Your task to perform on an android device: Go to internet settings Image 0: 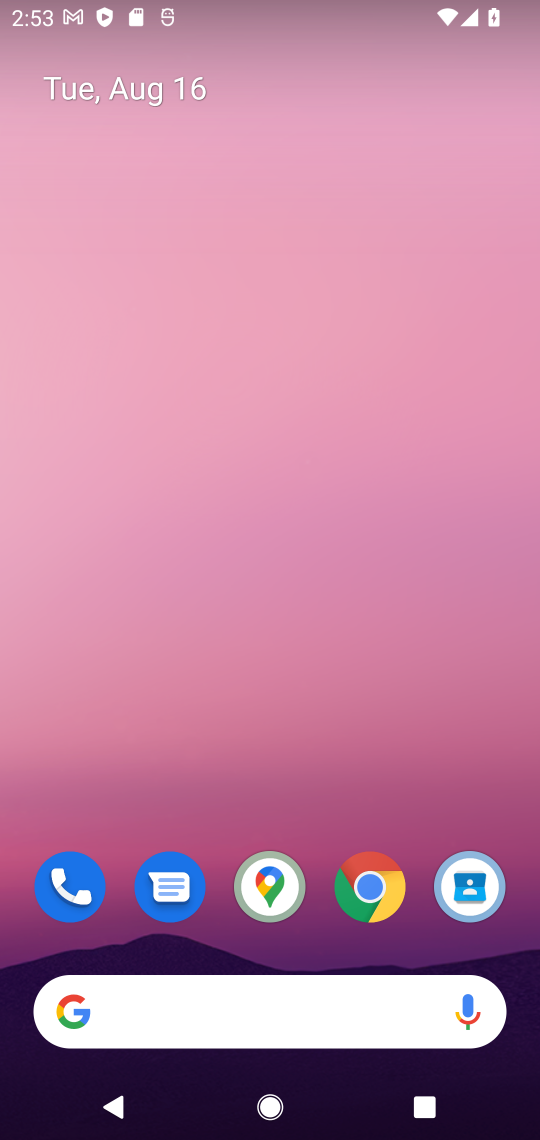
Step 0: drag from (315, 777) to (306, 124)
Your task to perform on an android device: Go to internet settings Image 1: 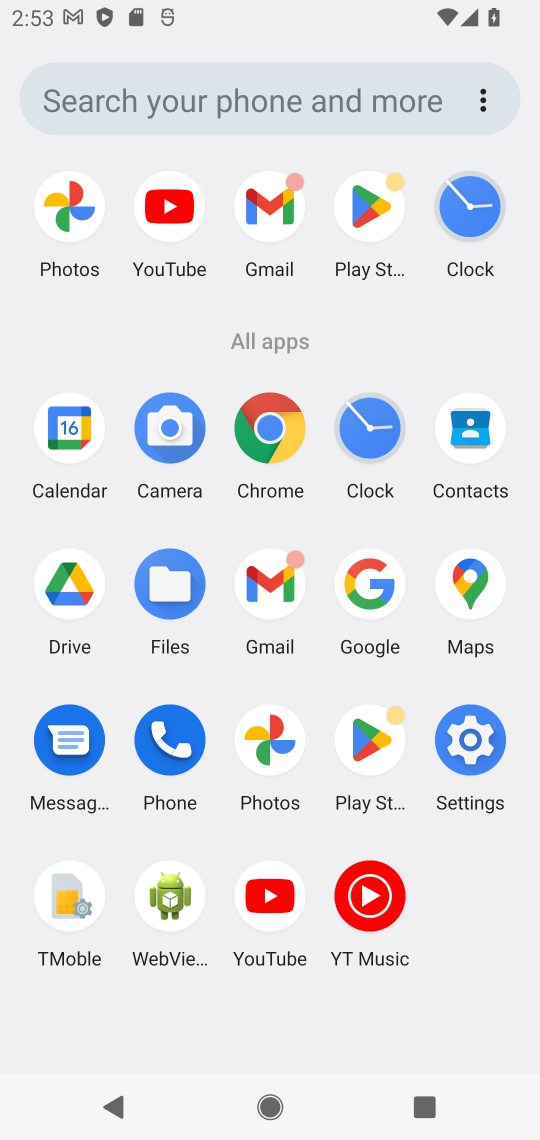
Step 1: click (476, 752)
Your task to perform on an android device: Go to internet settings Image 2: 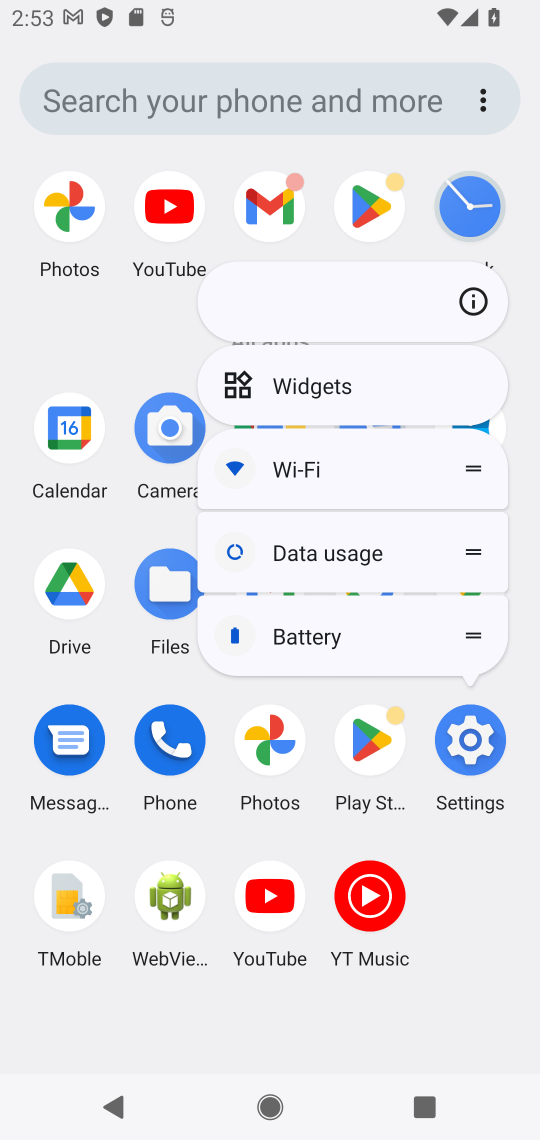
Step 2: click (473, 750)
Your task to perform on an android device: Go to internet settings Image 3: 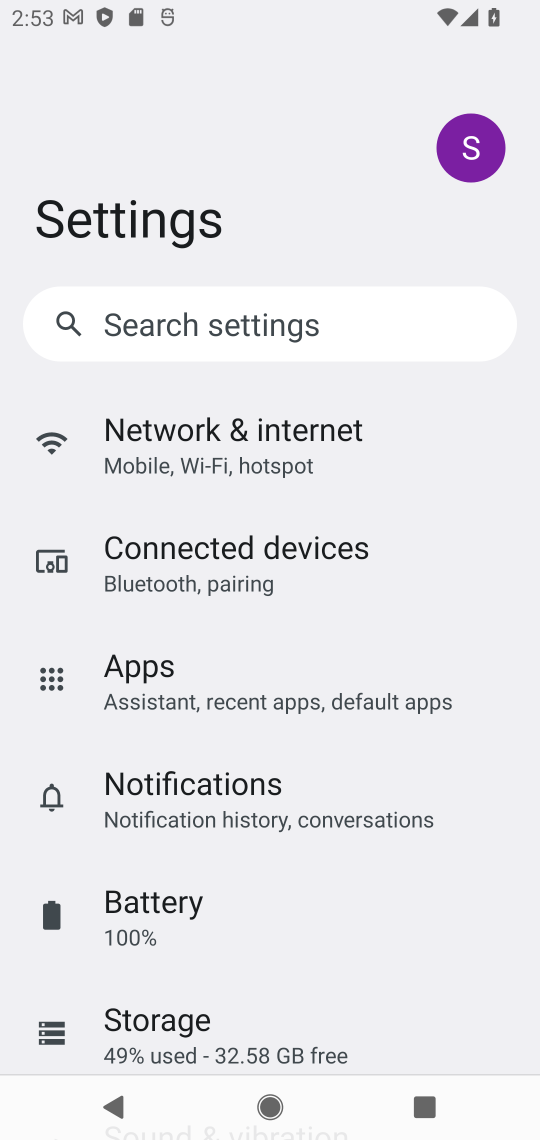
Step 3: click (296, 436)
Your task to perform on an android device: Go to internet settings Image 4: 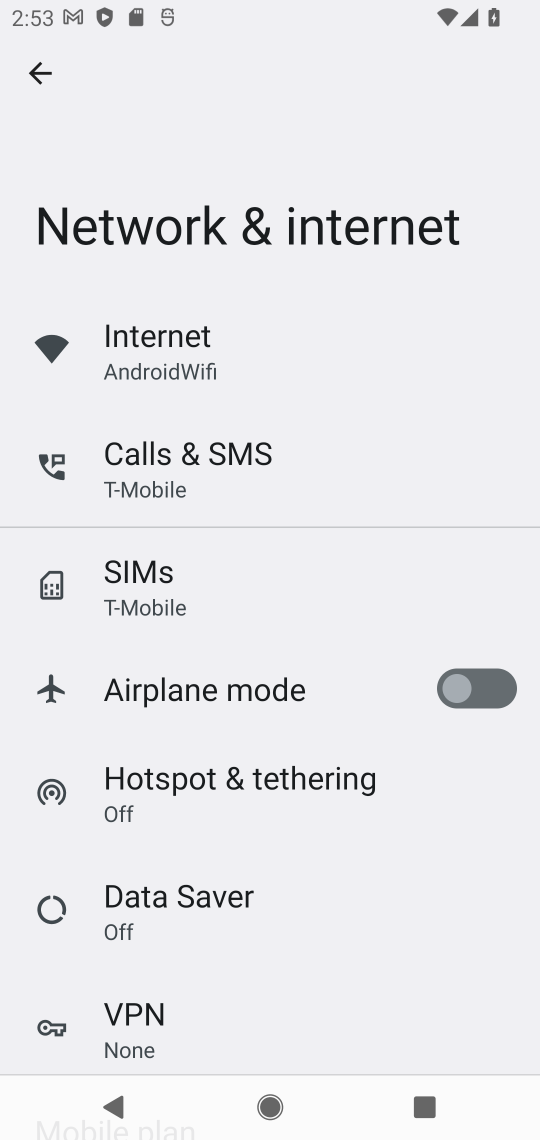
Step 4: click (211, 338)
Your task to perform on an android device: Go to internet settings Image 5: 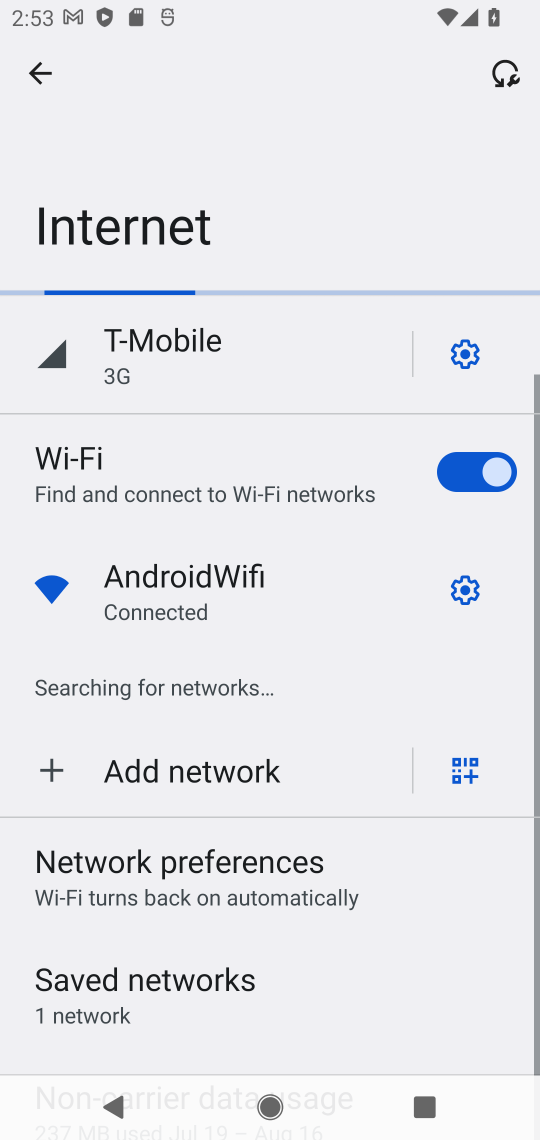
Step 5: task complete